Your task to perform on an android device: Open sound settings Image 0: 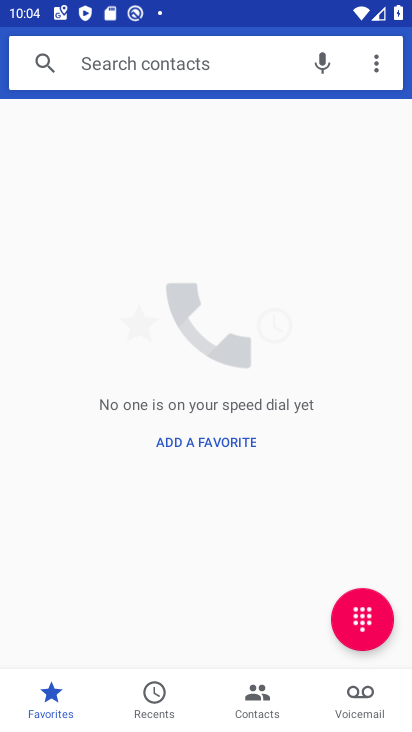
Step 0: press home button
Your task to perform on an android device: Open sound settings Image 1: 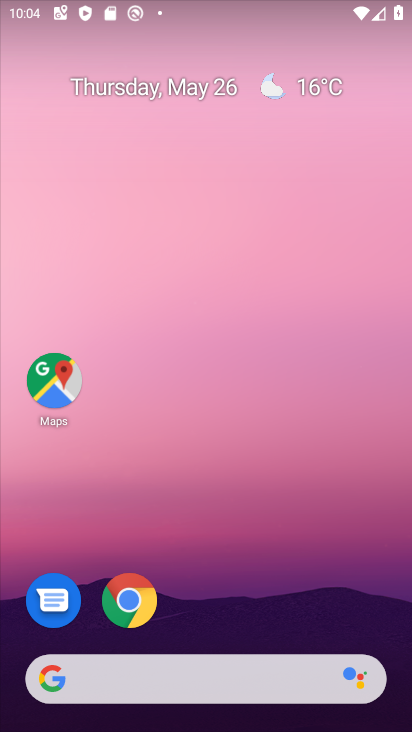
Step 1: drag from (204, 623) to (331, 1)
Your task to perform on an android device: Open sound settings Image 2: 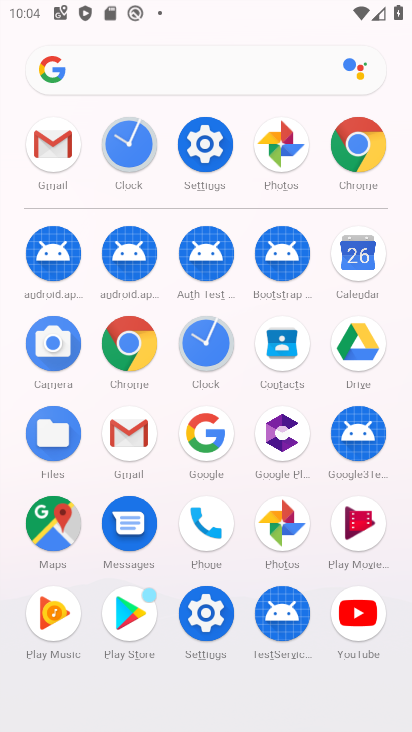
Step 2: click (205, 159)
Your task to perform on an android device: Open sound settings Image 3: 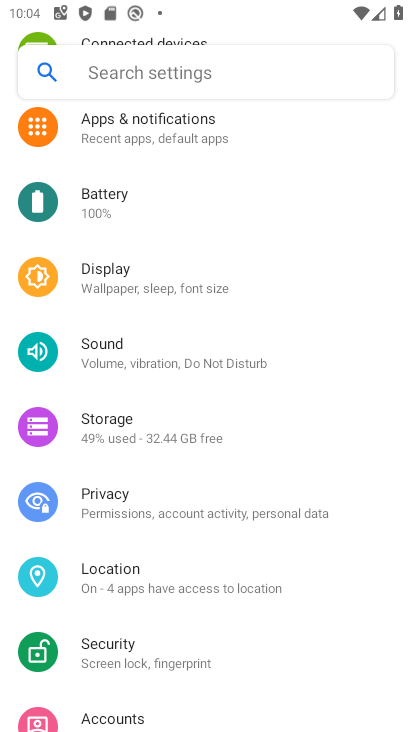
Step 3: click (139, 360)
Your task to perform on an android device: Open sound settings Image 4: 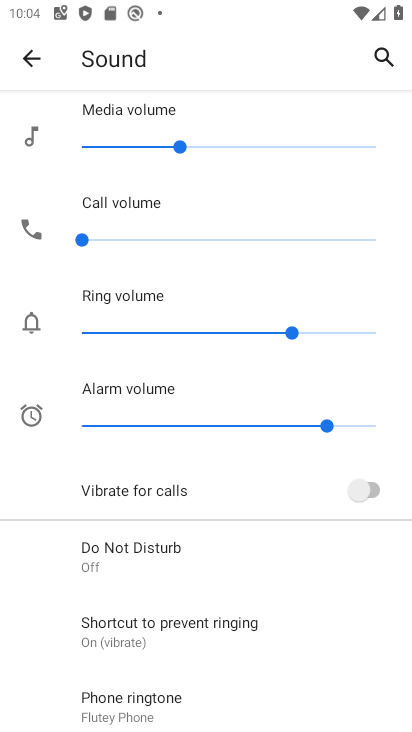
Step 4: task complete